Your task to perform on an android device: Check the weather Image 0: 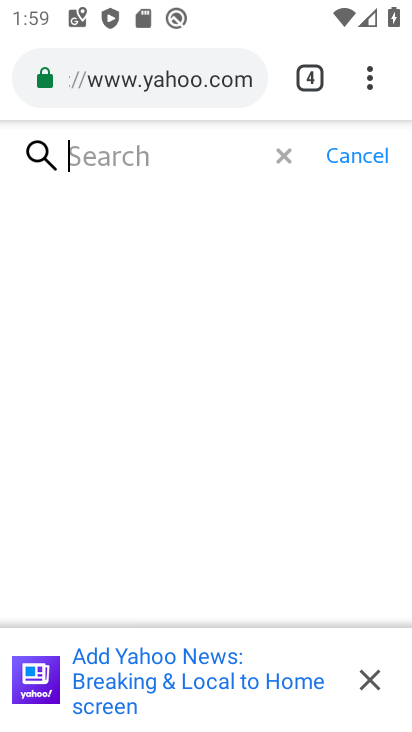
Step 0: press home button
Your task to perform on an android device: Check the weather Image 1: 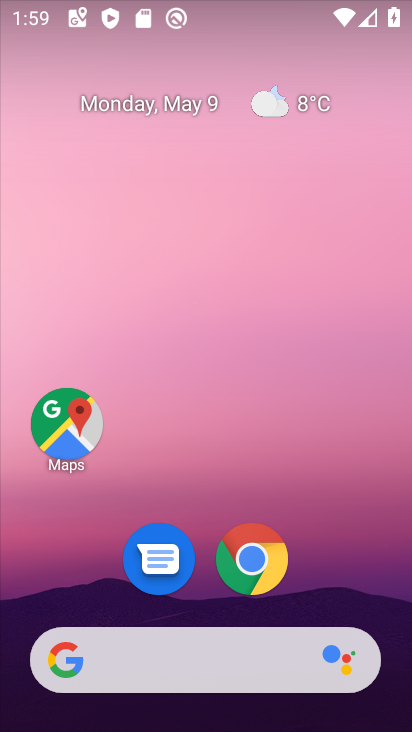
Step 1: click (248, 668)
Your task to perform on an android device: Check the weather Image 2: 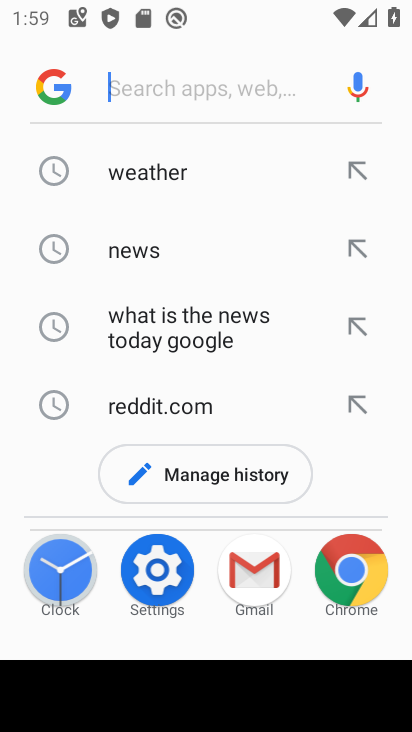
Step 2: click (154, 179)
Your task to perform on an android device: Check the weather Image 3: 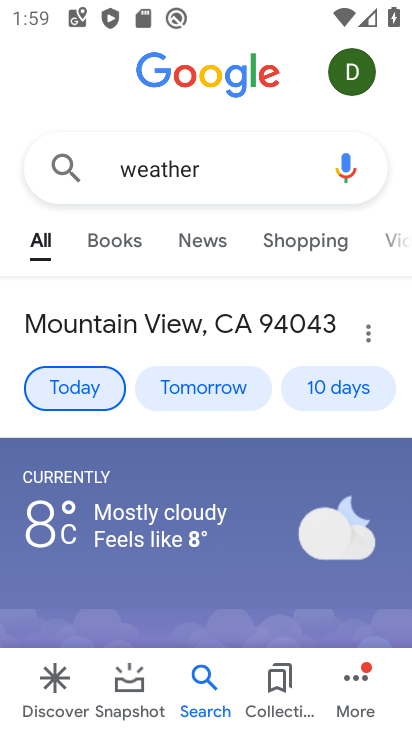
Step 3: task complete